Your task to perform on an android device: open the mobile data screen to see how much data has been used Image 0: 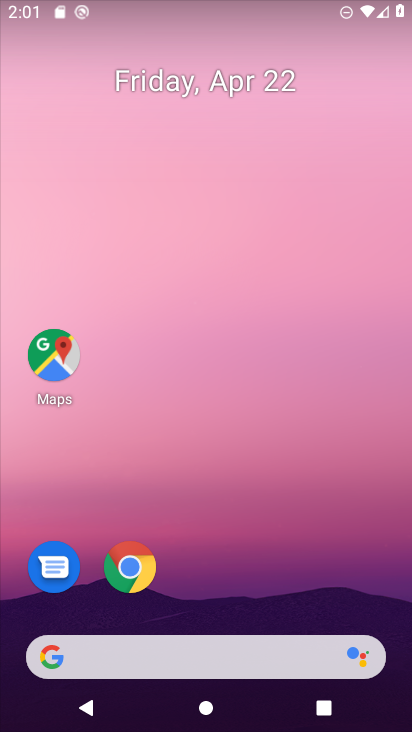
Step 0: drag from (240, 583) to (230, 116)
Your task to perform on an android device: open the mobile data screen to see how much data has been used Image 1: 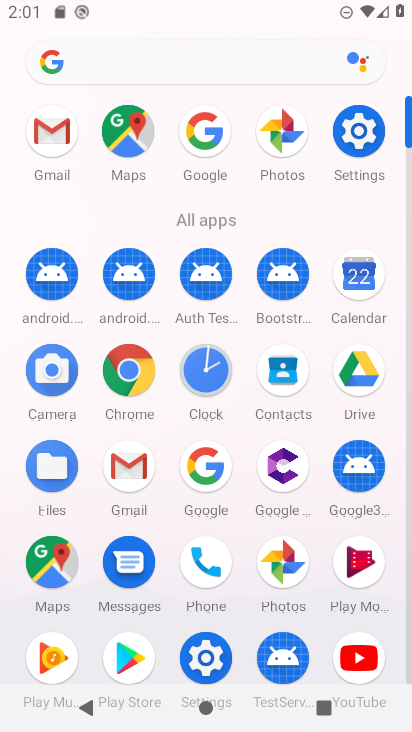
Step 1: click (359, 139)
Your task to perform on an android device: open the mobile data screen to see how much data has been used Image 2: 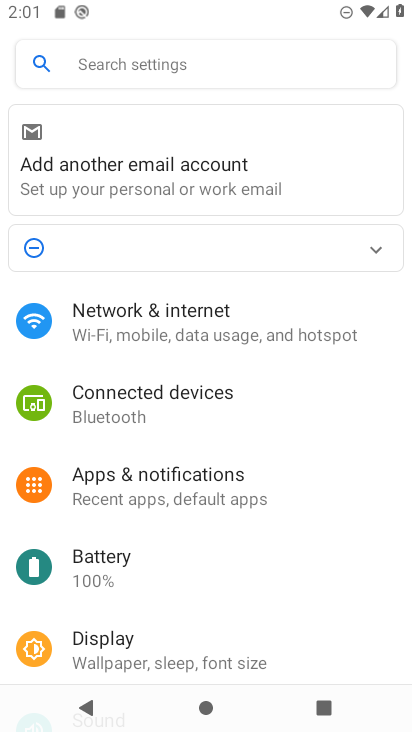
Step 2: click (196, 309)
Your task to perform on an android device: open the mobile data screen to see how much data has been used Image 3: 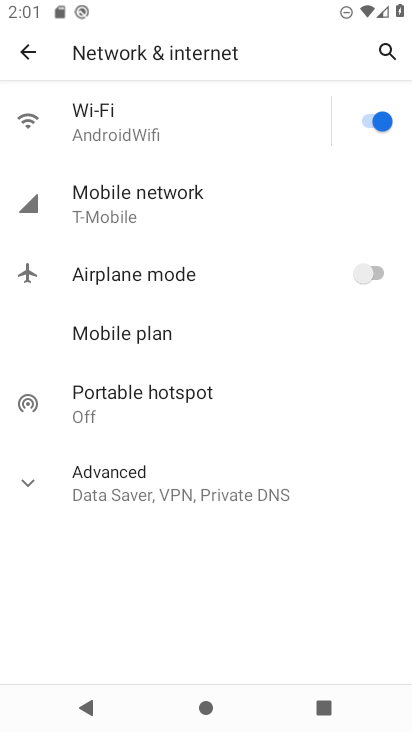
Step 3: click (179, 217)
Your task to perform on an android device: open the mobile data screen to see how much data has been used Image 4: 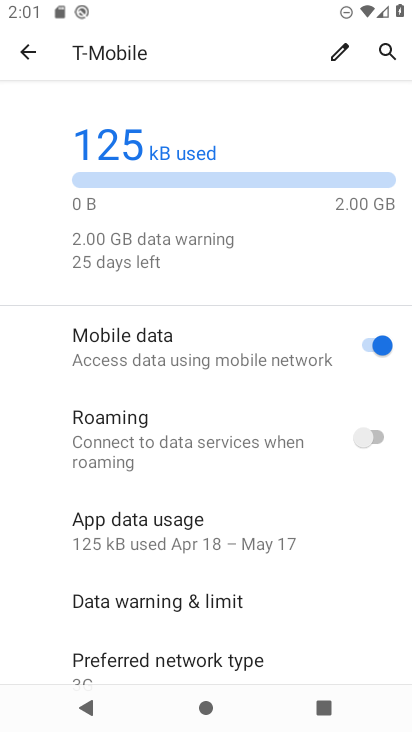
Step 4: click (189, 529)
Your task to perform on an android device: open the mobile data screen to see how much data has been used Image 5: 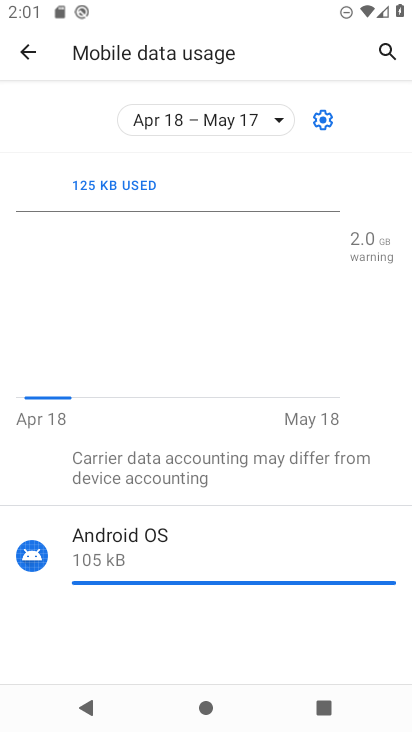
Step 5: task complete